Your task to perform on an android device: open device folders in google photos Image 0: 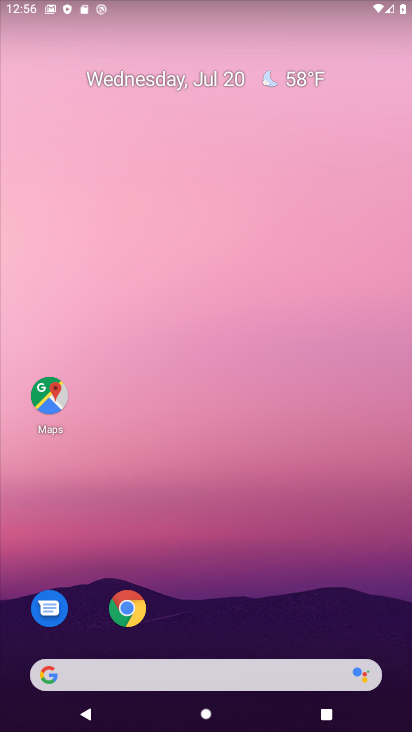
Step 0: drag from (228, 582) to (227, 276)
Your task to perform on an android device: open device folders in google photos Image 1: 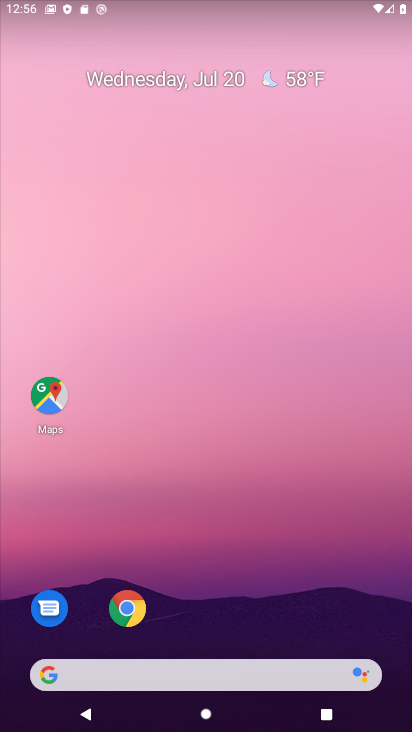
Step 1: drag from (239, 727) to (241, 89)
Your task to perform on an android device: open device folders in google photos Image 2: 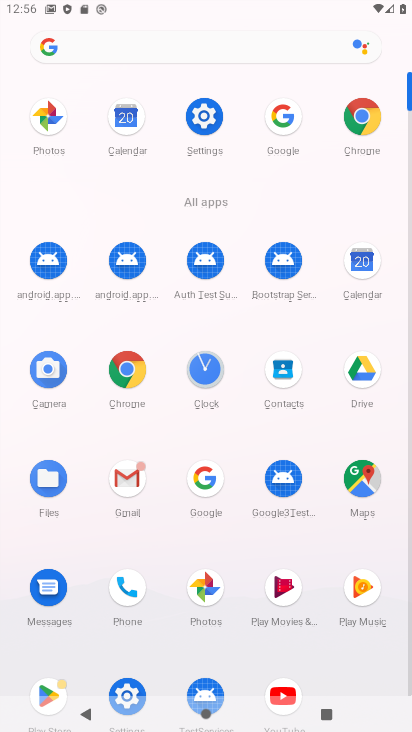
Step 2: click (206, 581)
Your task to perform on an android device: open device folders in google photos Image 3: 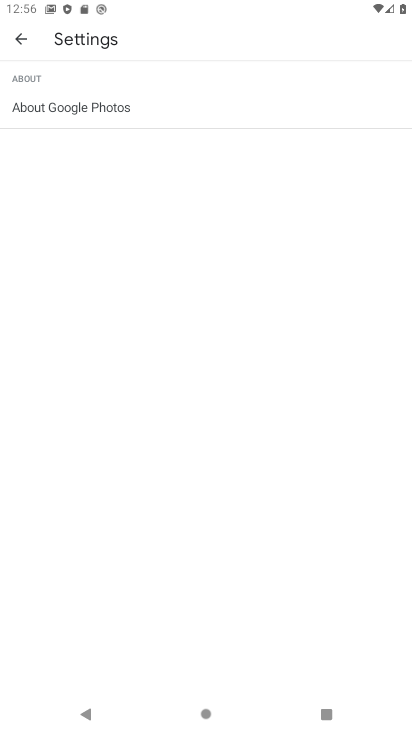
Step 3: click (20, 36)
Your task to perform on an android device: open device folders in google photos Image 4: 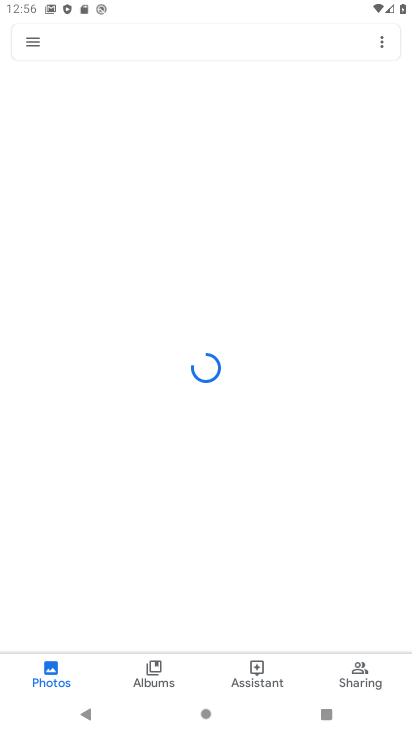
Step 4: click (34, 41)
Your task to perform on an android device: open device folders in google photos Image 5: 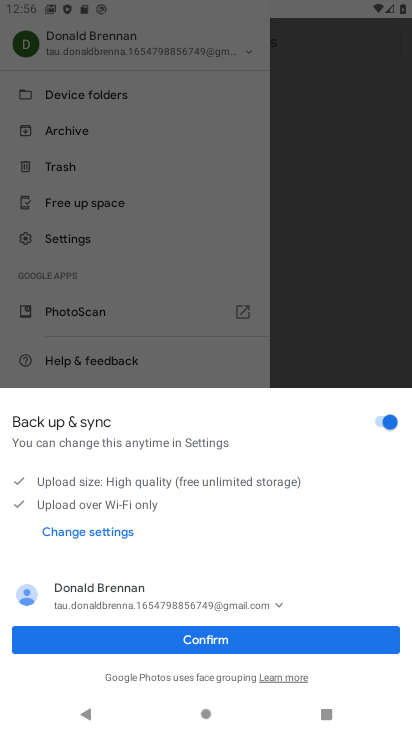
Step 5: click (190, 636)
Your task to perform on an android device: open device folders in google photos Image 6: 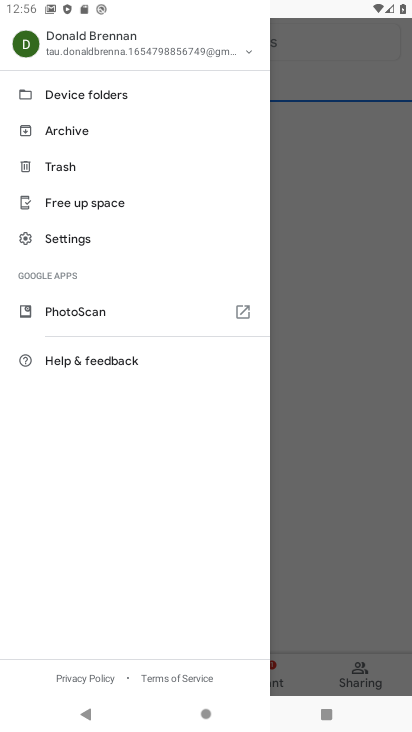
Step 6: click (91, 96)
Your task to perform on an android device: open device folders in google photos Image 7: 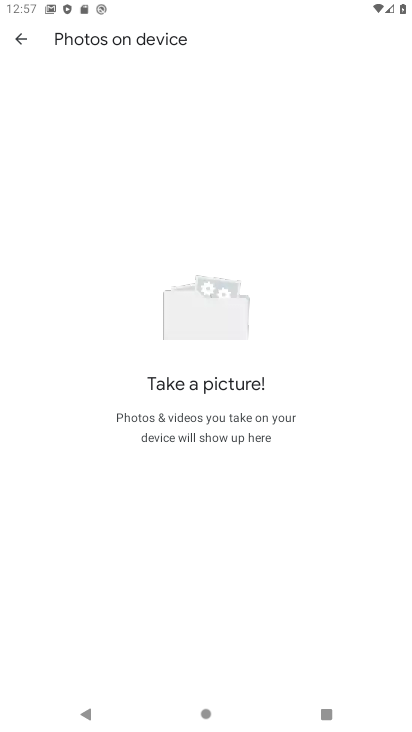
Step 7: task complete